Your task to perform on an android device: Go to Reddit.com Image 0: 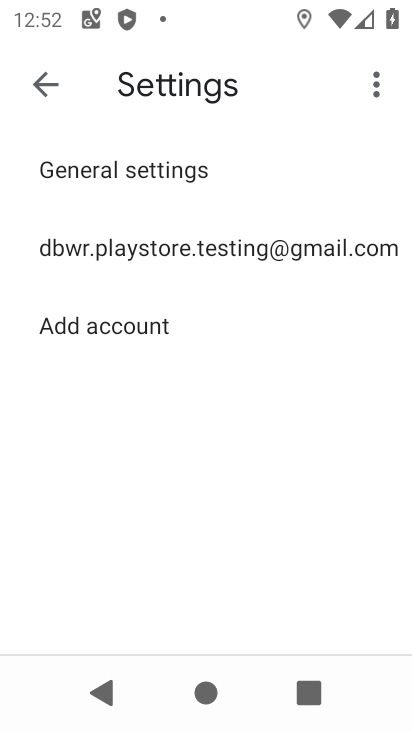
Step 0: press home button
Your task to perform on an android device: Go to Reddit.com Image 1: 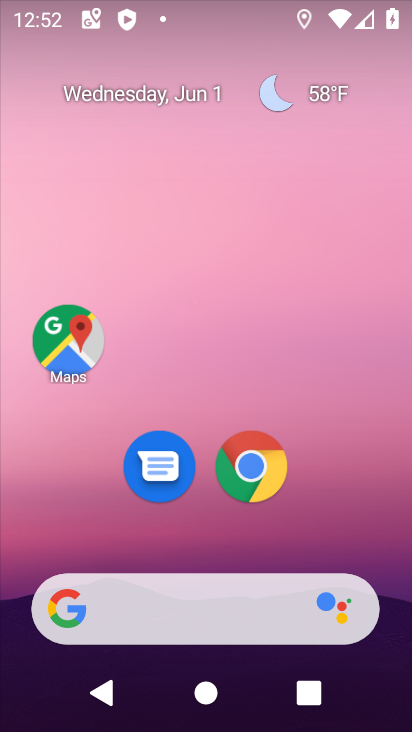
Step 1: drag from (398, 539) to (259, 6)
Your task to perform on an android device: Go to Reddit.com Image 2: 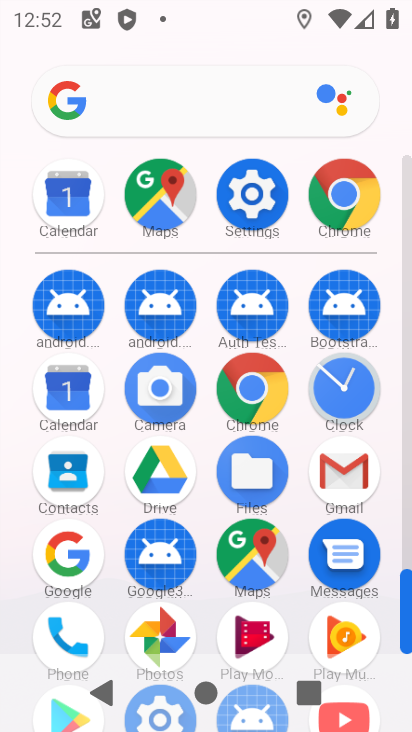
Step 2: click (322, 194)
Your task to perform on an android device: Go to Reddit.com Image 3: 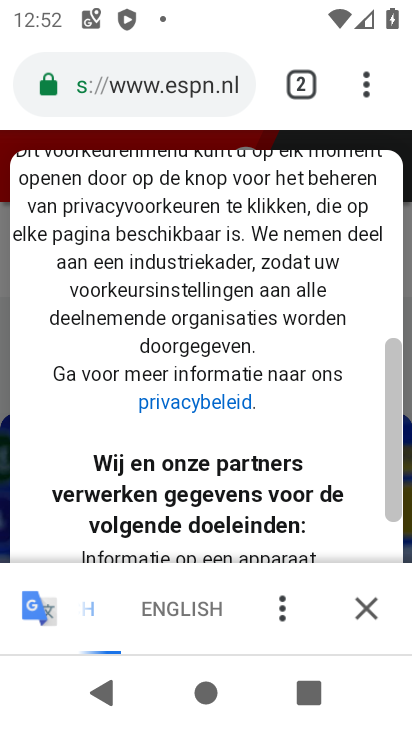
Step 3: click (209, 71)
Your task to perform on an android device: Go to Reddit.com Image 4: 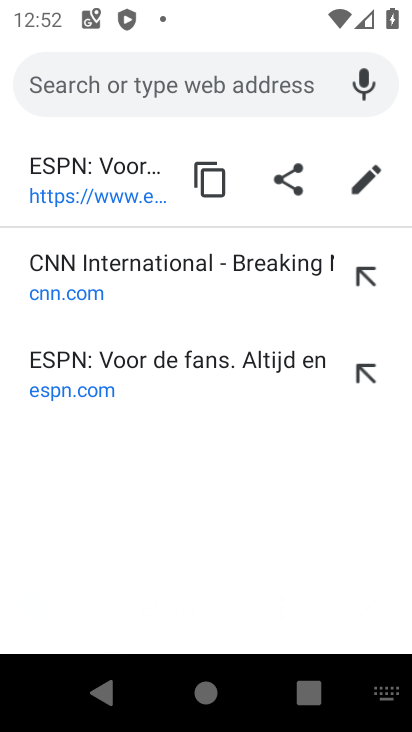
Step 4: type "reddit.com"
Your task to perform on an android device: Go to Reddit.com Image 5: 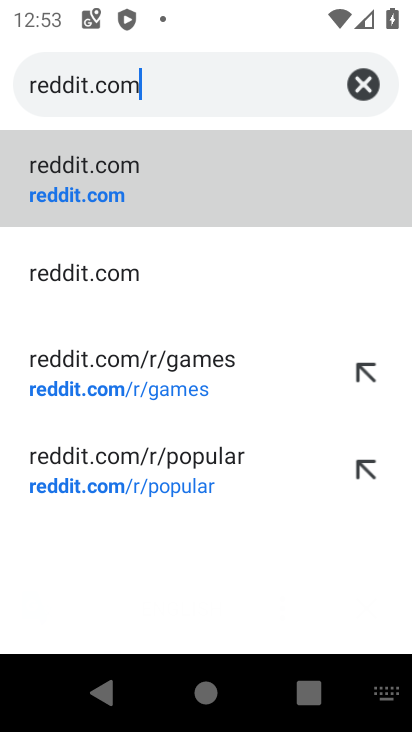
Step 5: click (106, 194)
Your task to perform on an android device: Go to Reddit.com Image 6: 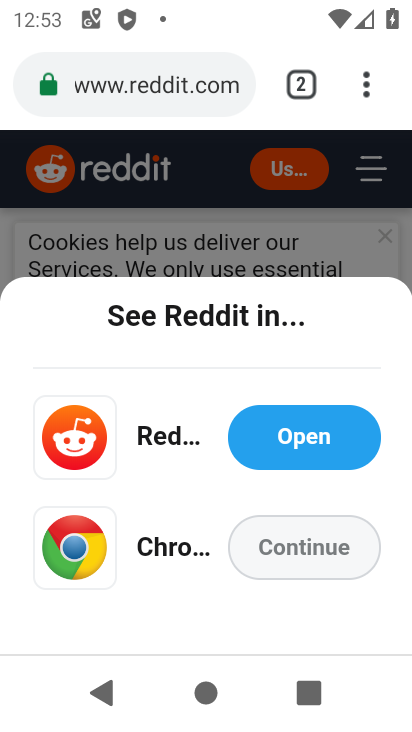
Step 6: task complete